Your task to perform on an android device: see creations saved in the google photos Image 0: 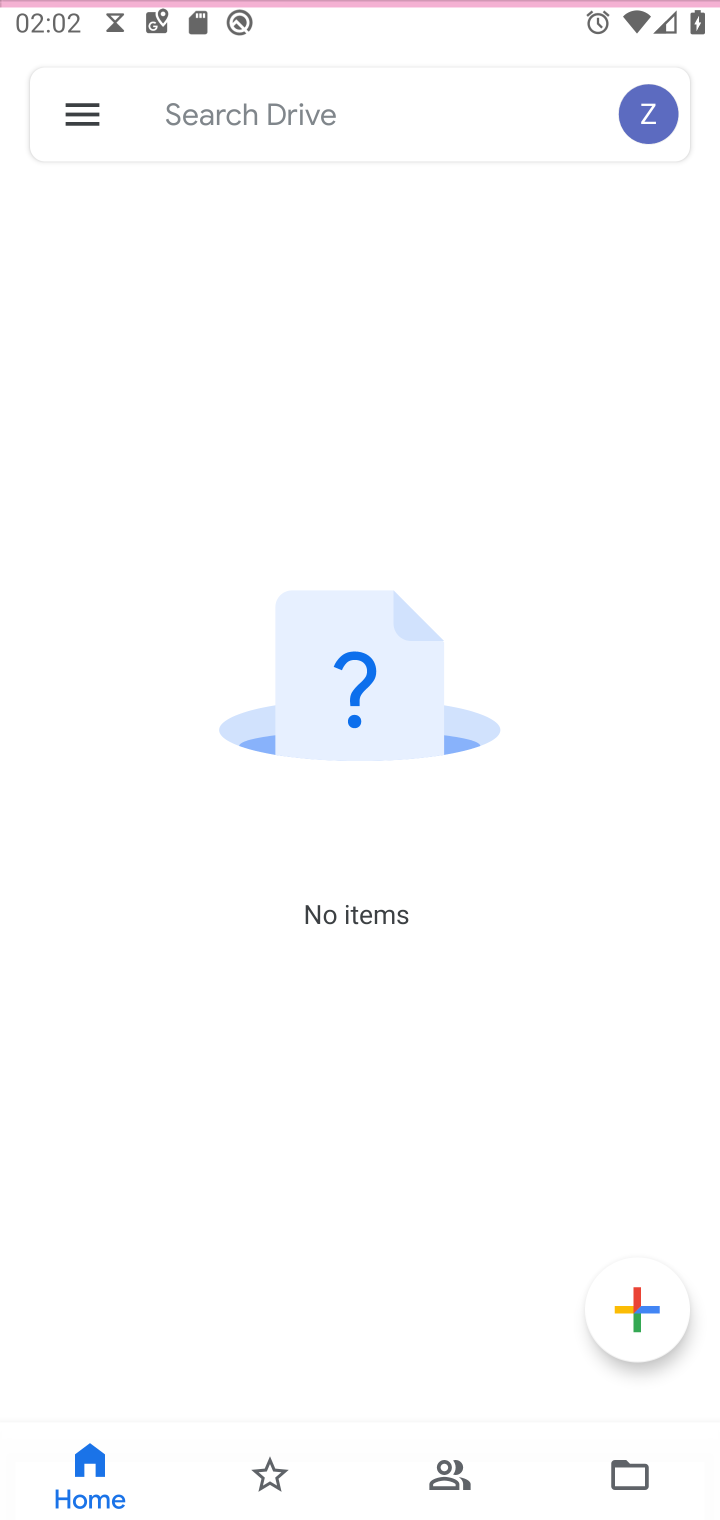
Step 0: press home button
Your task to perform on an android device: see creations saved in the google photos Image 1: 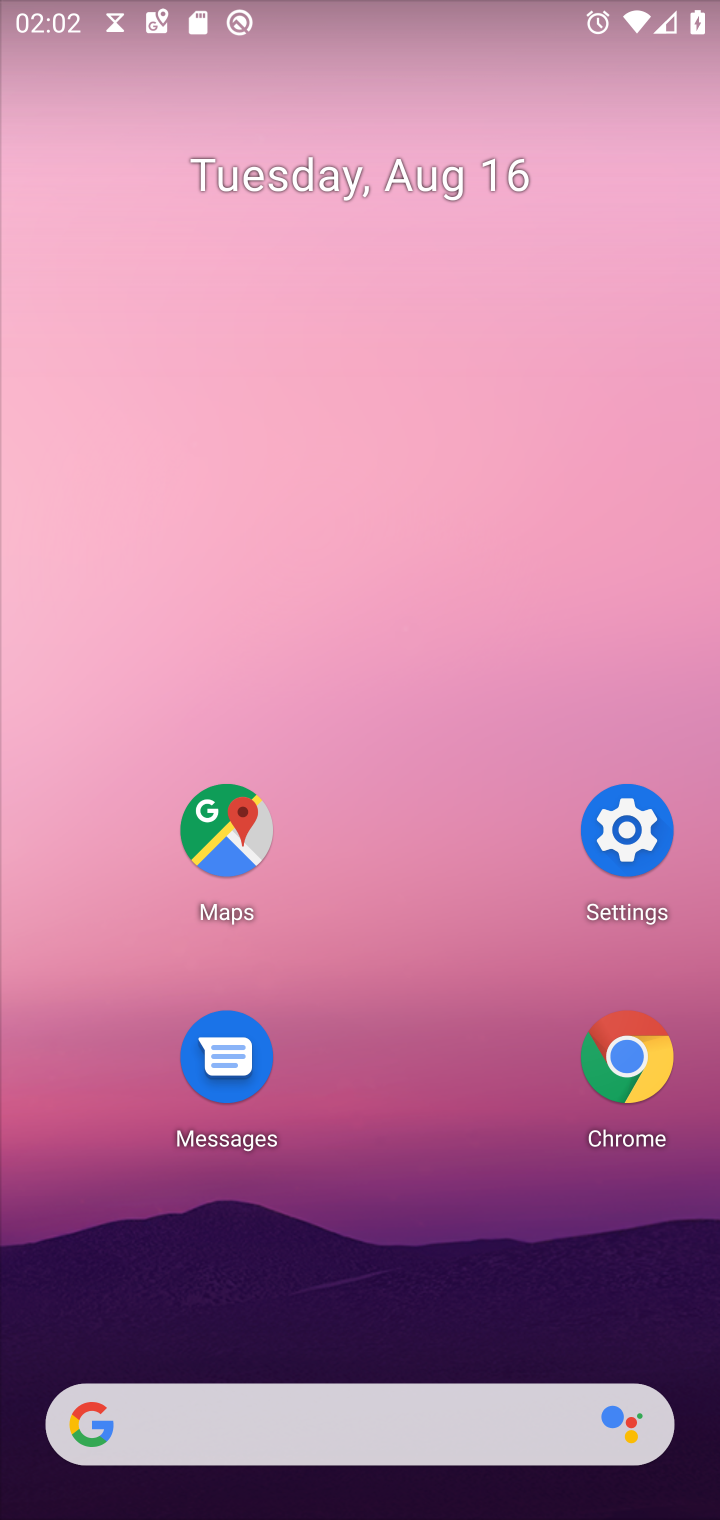
Step 1: drag from (219, 1411) to (568, 123)
Your task to perform on an android device: see creations saved in the google photos Image 2: 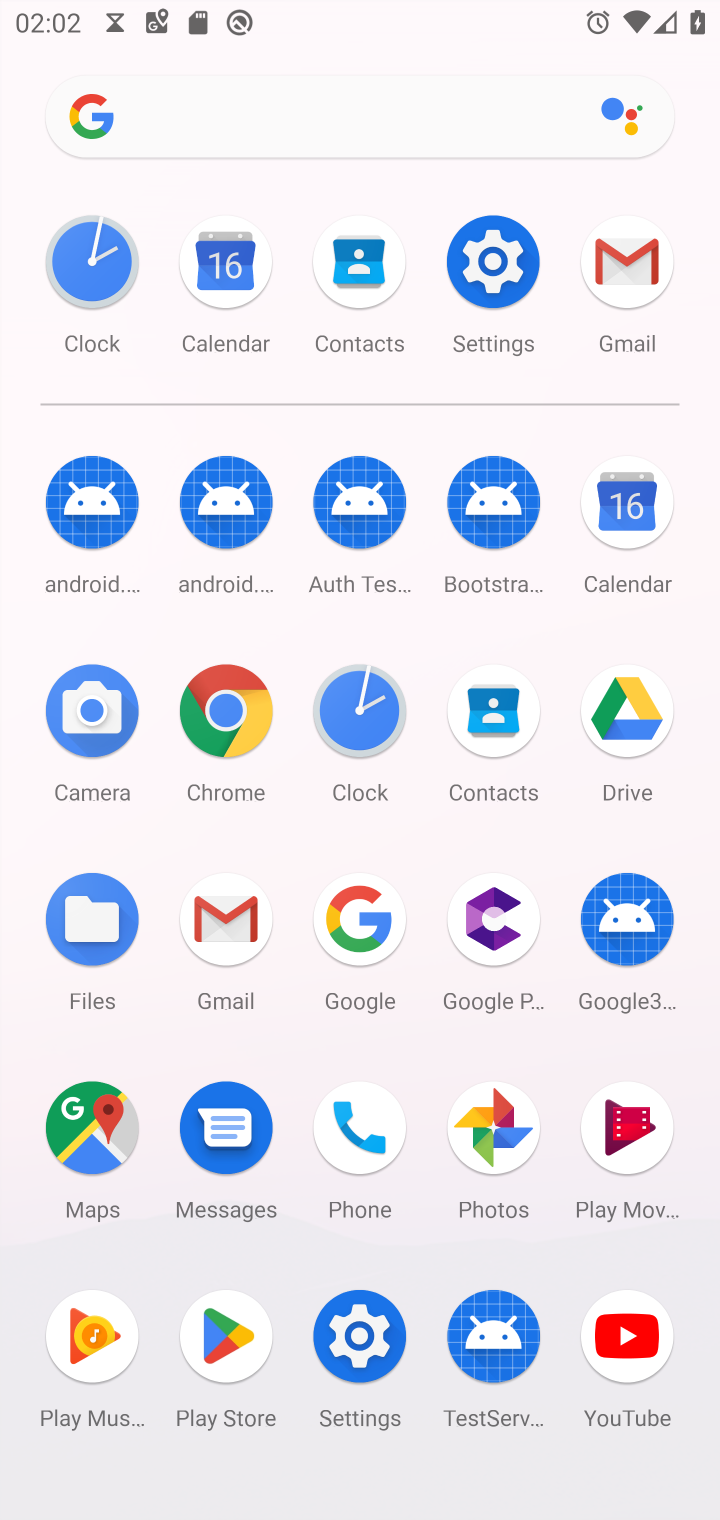
Step 2: click (485, 1128)
Your task to perform on an android device: see creations saved in the google photos Image 3: 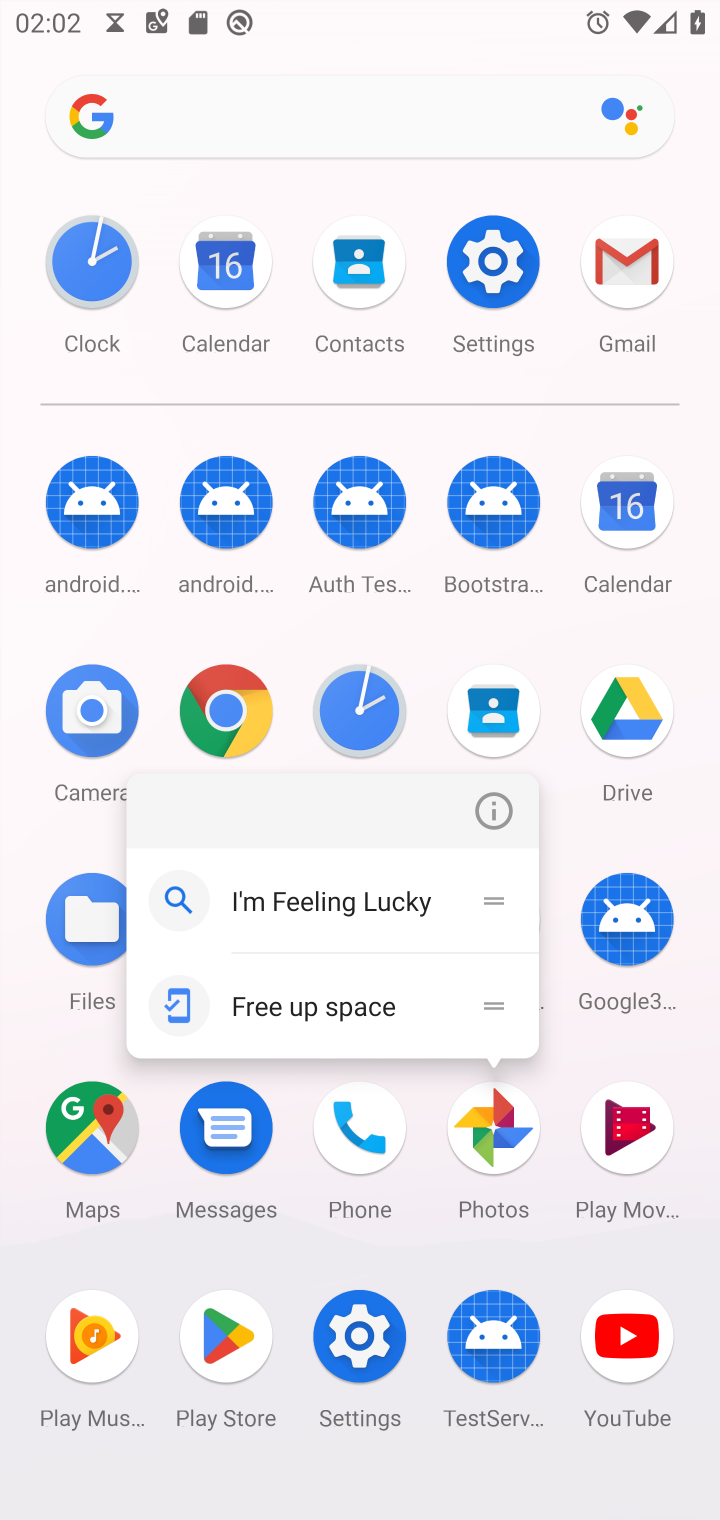
Step 3: click (485, 1124)
Your task to perform on an android device: see creations saved in the google photos Image 4: 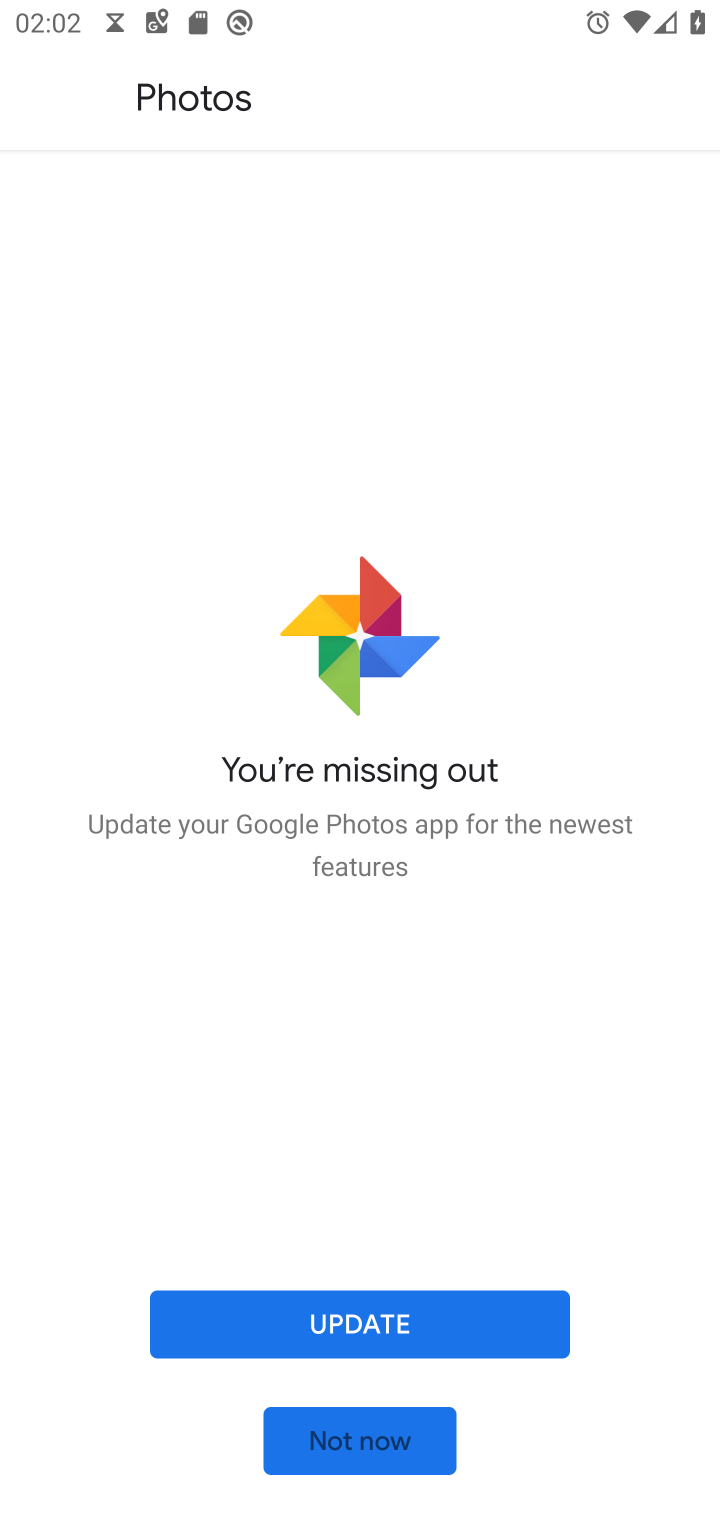
Step 4: click (353, 1316)
Your task to perform on an android device: see creations saved in the google photos Image 5: 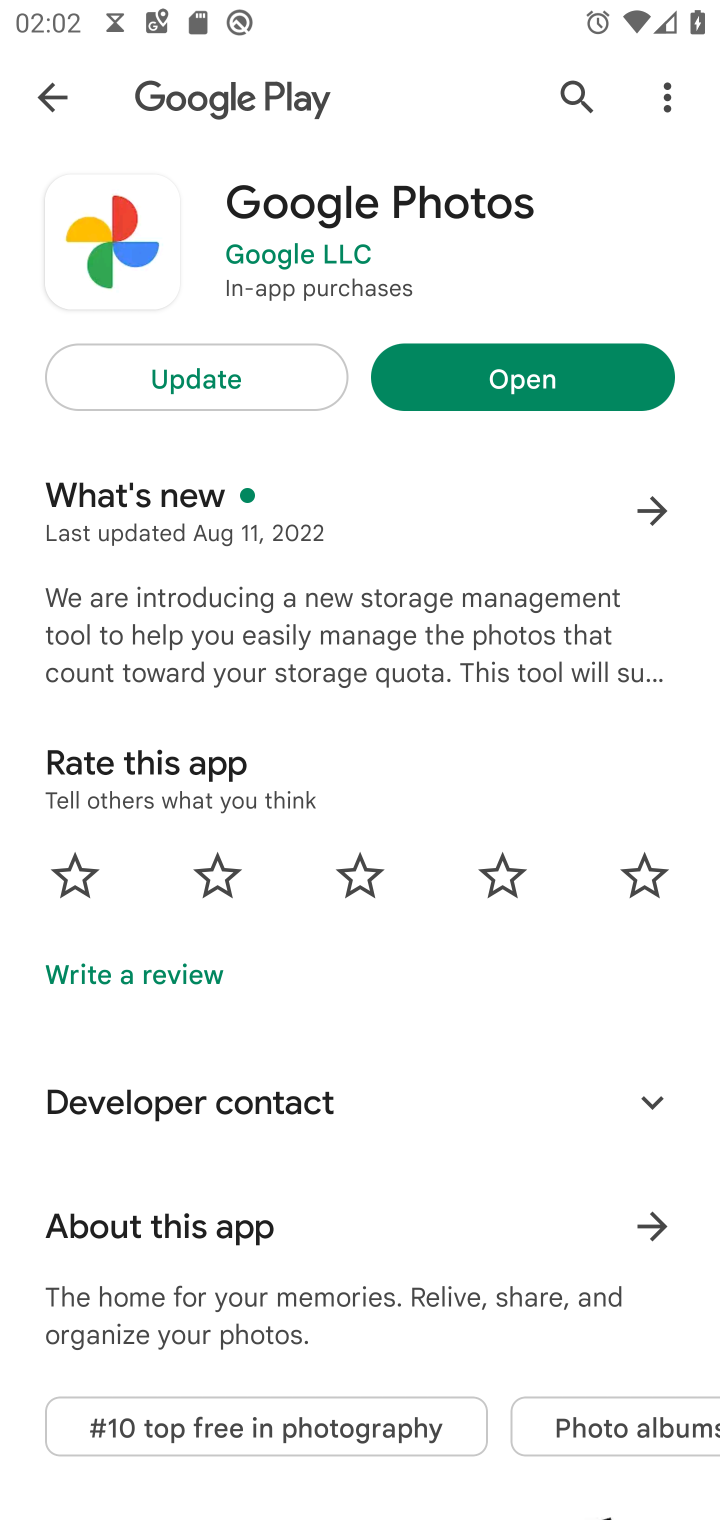
Step 5: click (262, 383)
Your task to perform on an android device: see creations saved in the google photos Image 6: 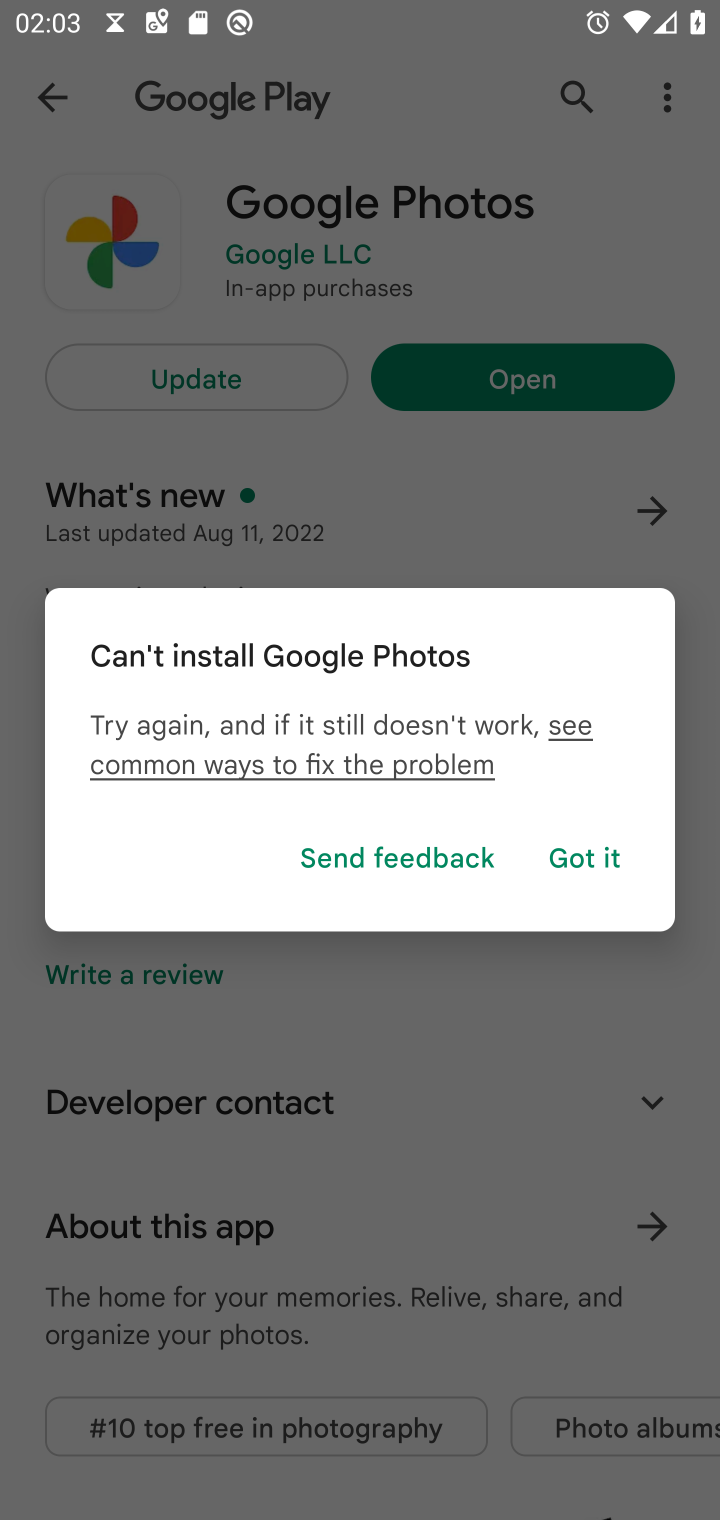
Step 6: task complete